Your task to perform on an android device: open app "Microsoft Excel" (install if not already installed), go to login, and select forgot password Image 0: 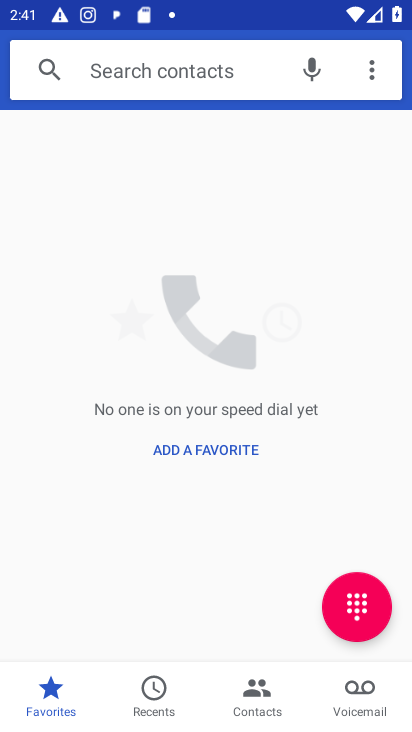
Step 0: press home button
Your task to perform on an android device: open app "Microsoft Excel" (install if not already installed), go to login, and select forgot password Image 1: 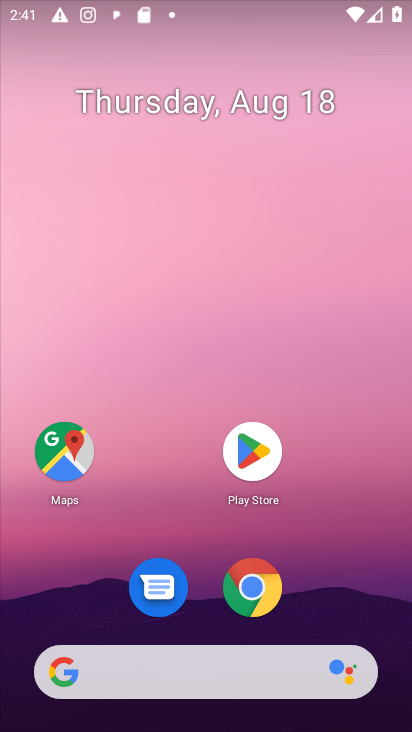
Step 1: click (260, 455)
Your task to perform on an android device: open app "Microsoft Excel" (install if not already installed), go to login, and select forgot password Image 2: 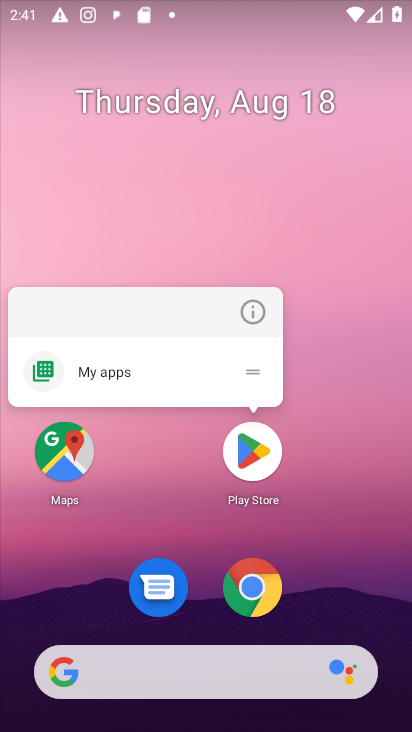
Step 2: click (251, 451)
Your task to perform on an android device: open app "Microsoft Excel" (install if not already installed), go to login, and select forgot password Image 3: 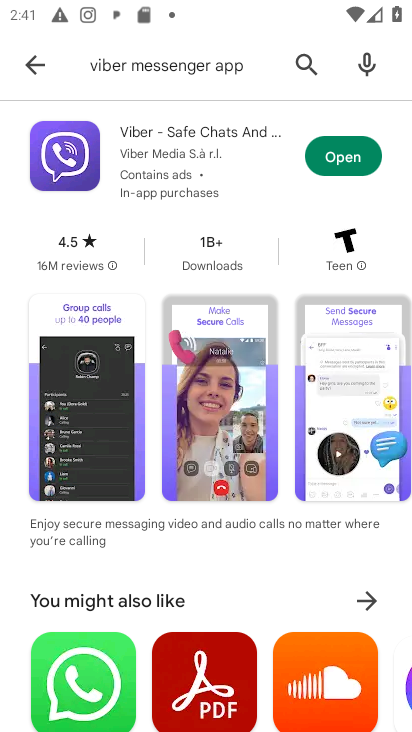
Step 3: click (301, 62)
Your task to perform on an android device: open app "Microsoft Excel" (install if not already installed), go to login, and select forgot password Image 4: 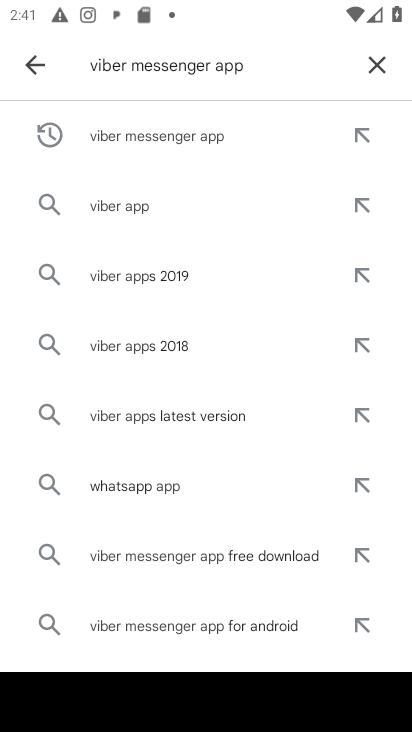
Step 4: click (375, 59)
Your task to perform on an android device: open app "Microsoft Excel" (install if not already installed), go to login, and select forgot password Image 5: 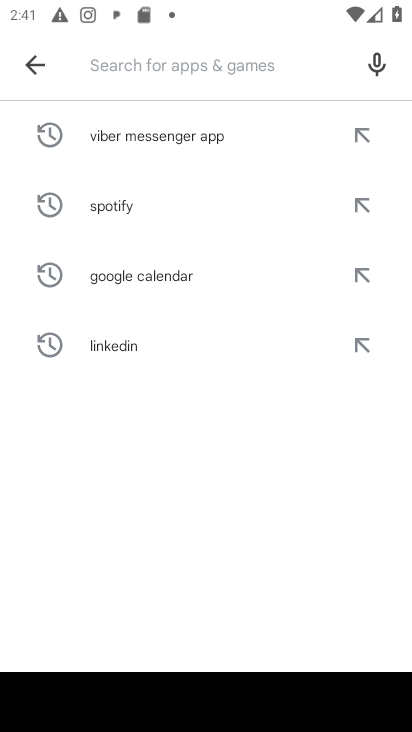
Step 5: type "Microsoft Excel"
Your task to perform on an android device: open app "Microsoft Excel" (install if not already installed), go to login, and select forgot password Image 6: 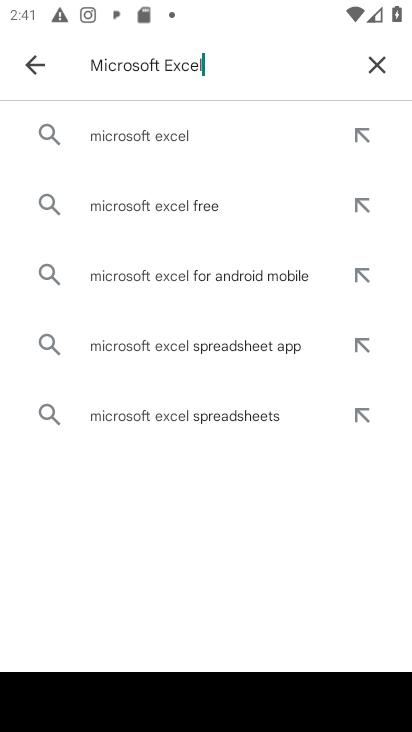
Step 6: click (143, 129)
Your task to perform on an android device: open app "Microsoft Excel" (install if not already installed), go to login, and select forgot password Image 7: 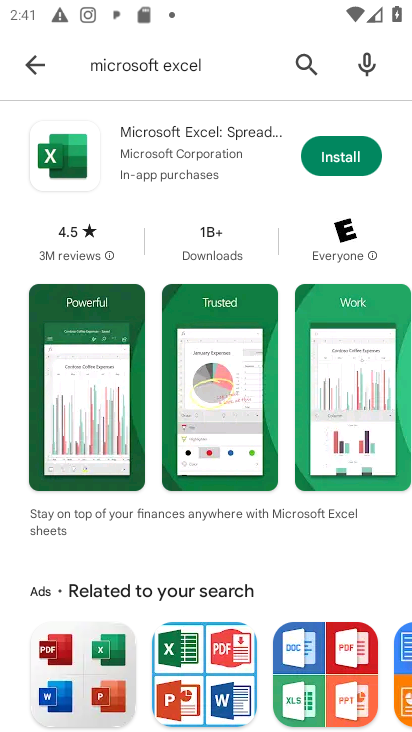
Step 7: click (353, 156)
Your task to perform on an android device: open app "Microsoft Excel" (install if not already installed), go to login, and select forgot password Image 8: 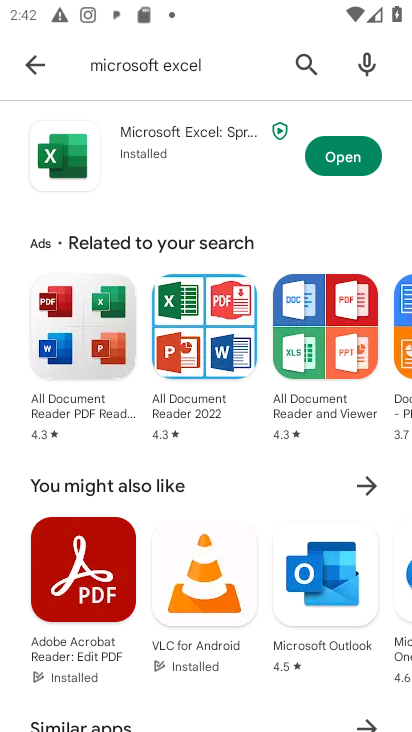
Step 8: click (331, 161)
Your task to perform on an android device: open app "Microsoft Excel" (install if not already installed), go to login, and select forgot password Image 9: 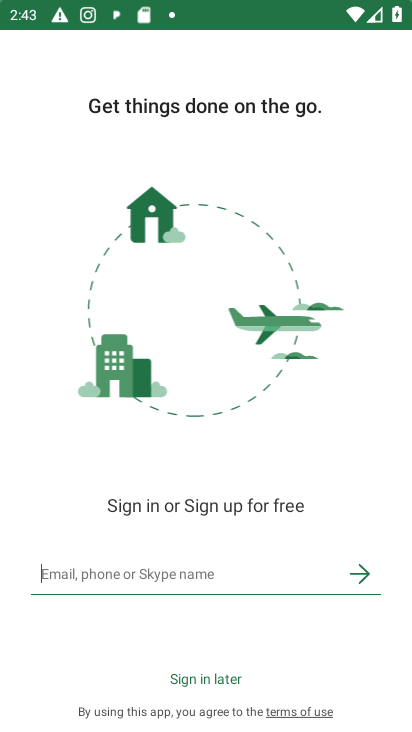
Step 9: task complete